Your task to perform on an android device: open chrome and create a bookmark for the current page Image 0: 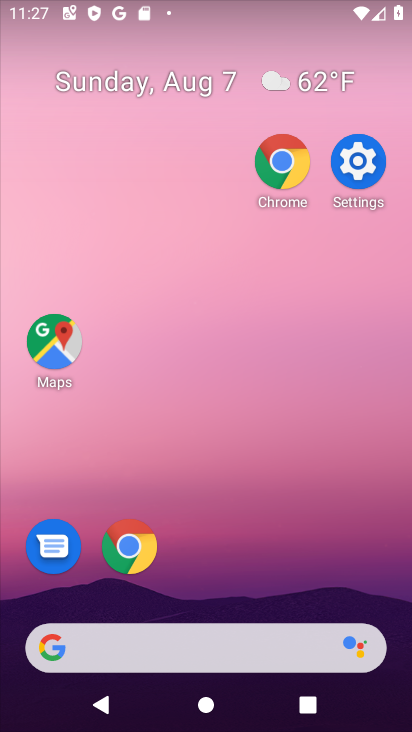
Step 0: drag from (183, 590) to (183, 197)
Your task to perform on an android device: open chrome and create a bookmark for the current page Image 1: 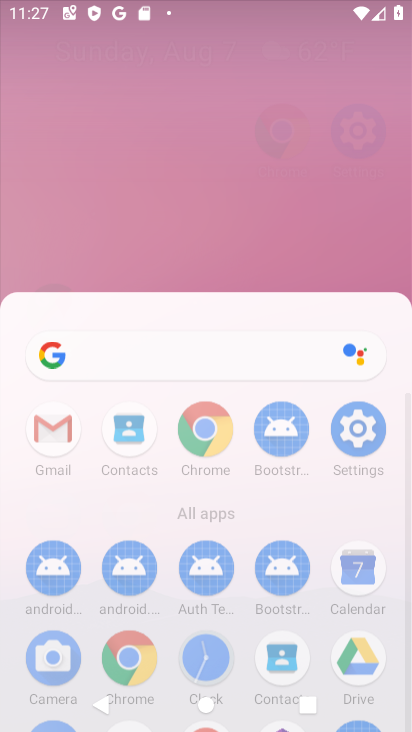
Step 1: drag from (203, 462) to (201, 184)
Your task to perform on an android device: open chrome and create a bookmark for the current page Image 2: 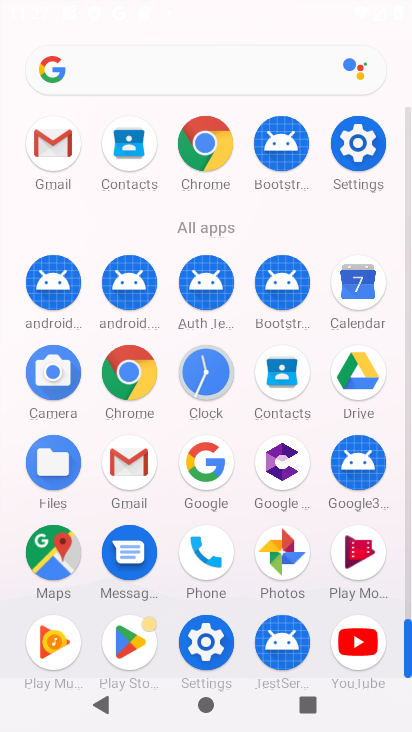
Step 2: click (198, 147)
Your task to perform on an android device: open chrome and create a bookmark for the current page Image 3: 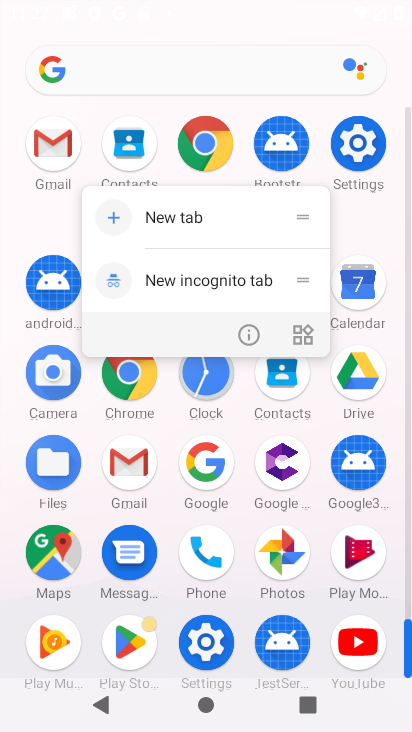
Step 3: click (210, 164)
Your task to perform on an android device: open chrome and create a bookmark for the current page Image 4: 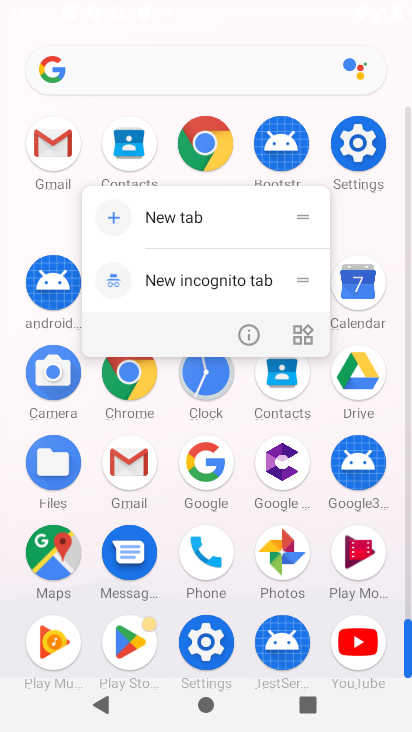
Step 4: click (210, 164)
Your task to perform on an android device: open chrome and create a bookmark for the current page Image 5: 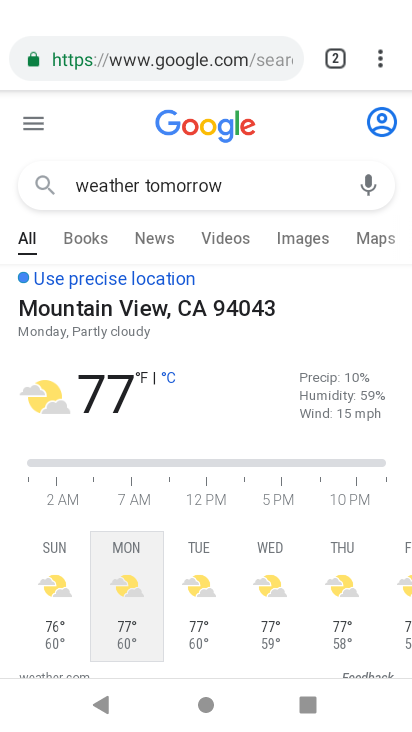
Step 5: click (379, 63)
Your task to perform on an android device: open chrome and create a bookmark for the current page Image 6: 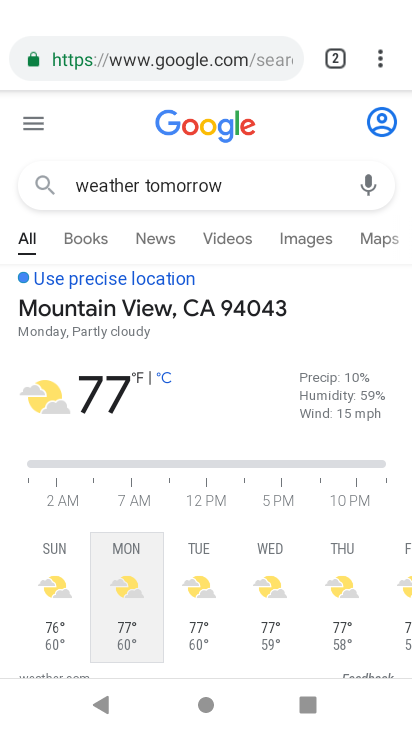
Step 6: drag from (380, 60) to (221, 214)
Your task to perform on an android device: open chrome and create a bookmark for the current page Image 7: 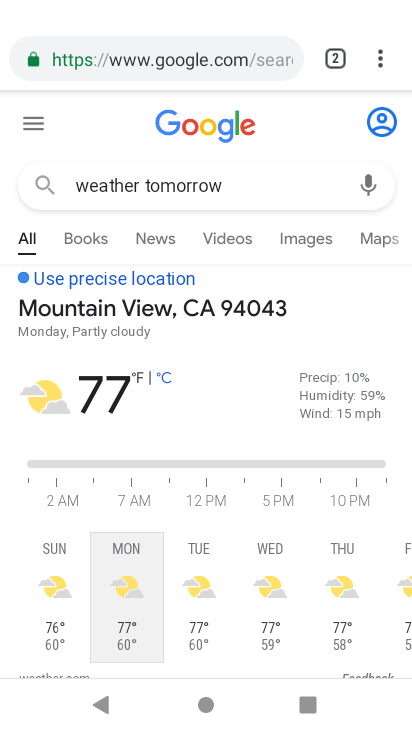
Step 7: click (232, 219)
Your task to perform on an android device: open chrome and create a bookmark for the current page Image 8: 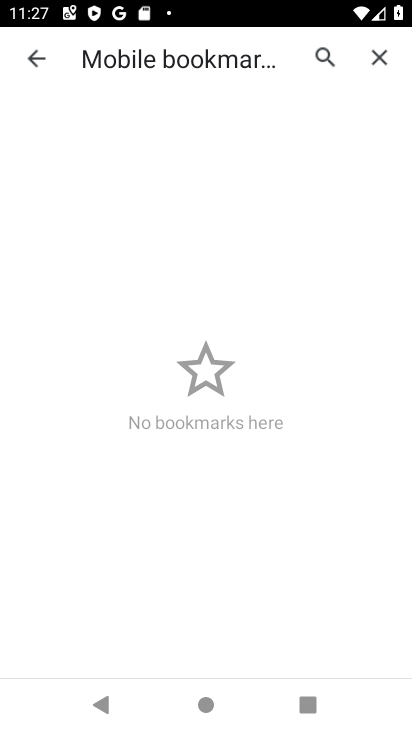
Step 8: task complete